Your task to perform on an android device: open a bookmark in the chrome app Image 0: 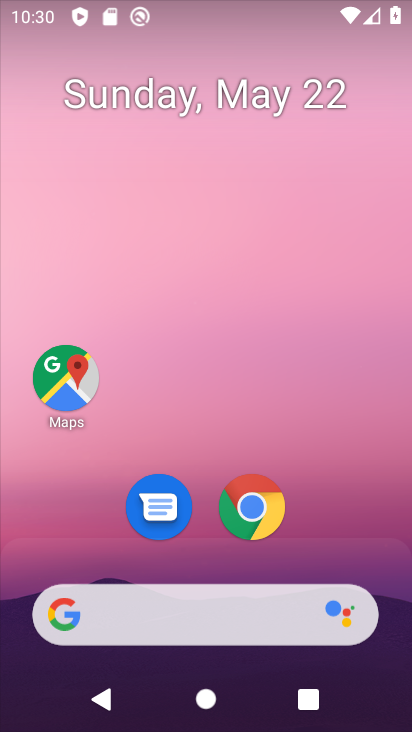
Step 0: click (235, 503)
Your task to perform on an android device: open a bookmark in the chrome app Image 1: 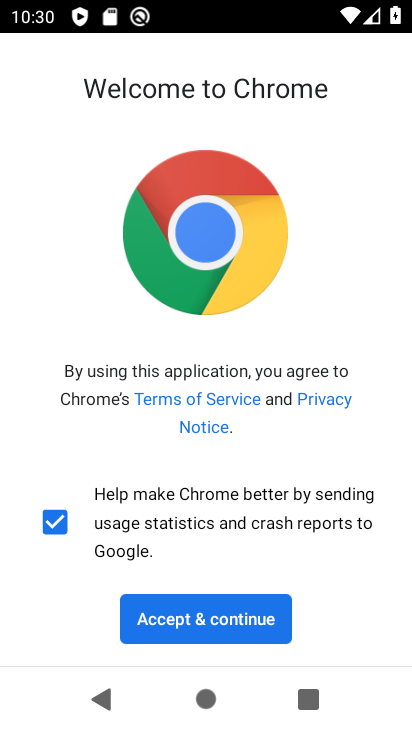
Step 1: click (226, 619)
Your task to perform on an android device: open a bookmark in the chrome app Image 2: 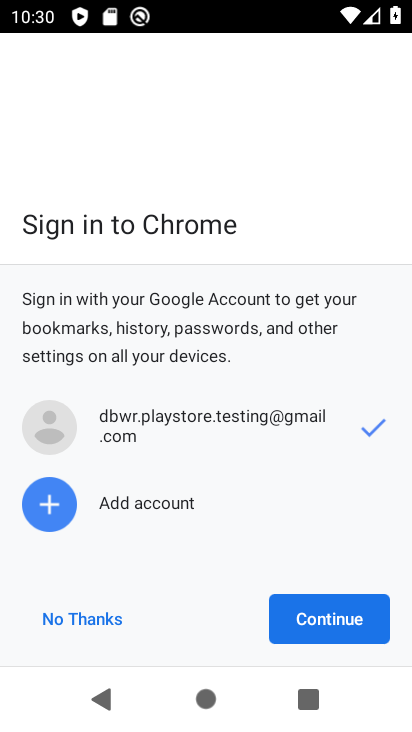
Step 2: click (360, 627)
Your task to perform on an android device: open a bookmark in the chrome app Image 3: 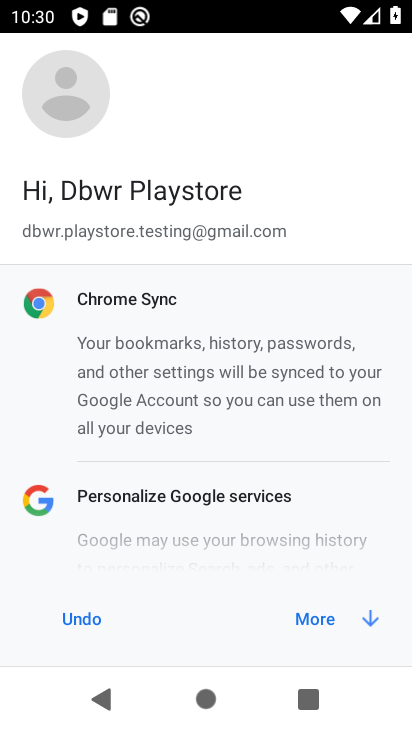
Step 3: click (341, 617)
Your task to perform on an android device: open a bookmark in the chrome app Image 4: 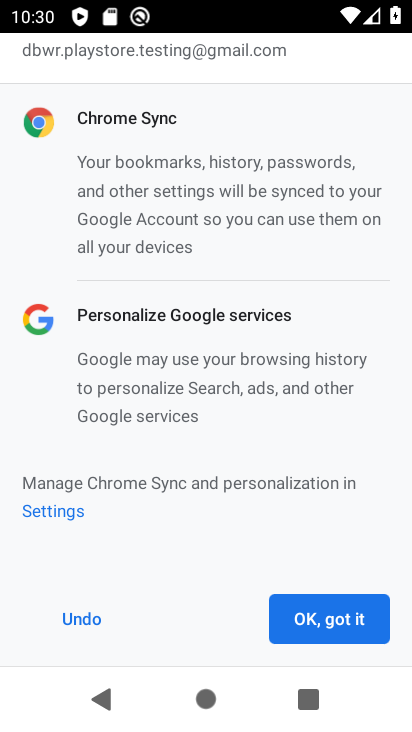
Step 4: click (341, 617)
Your task to perform on an android device: open a bookmark in the chrome app Image 5: 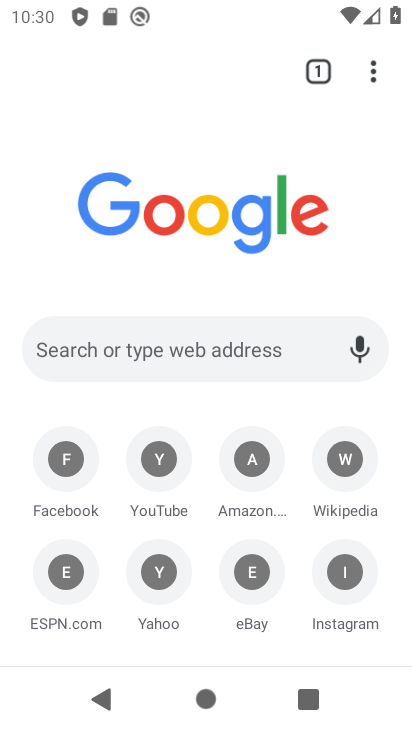
Step 5: click (369, 72)
Your task to perform on an android device: open a bookmark in the chrome app Image 6: 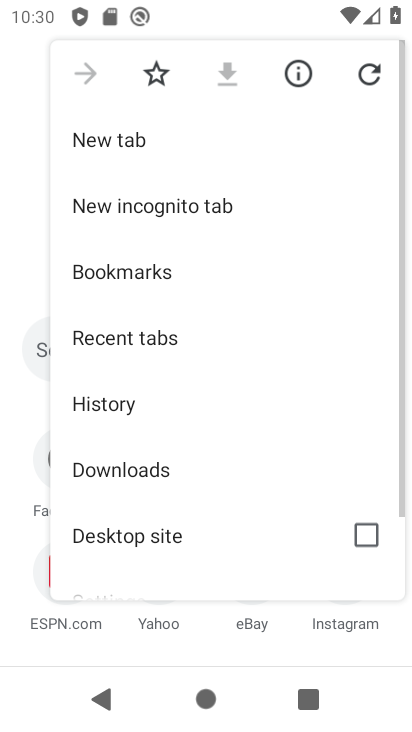
Step 6: click (205, 283)
Your task to perform on an android device: open a bookmark in the chrome app Image 7: 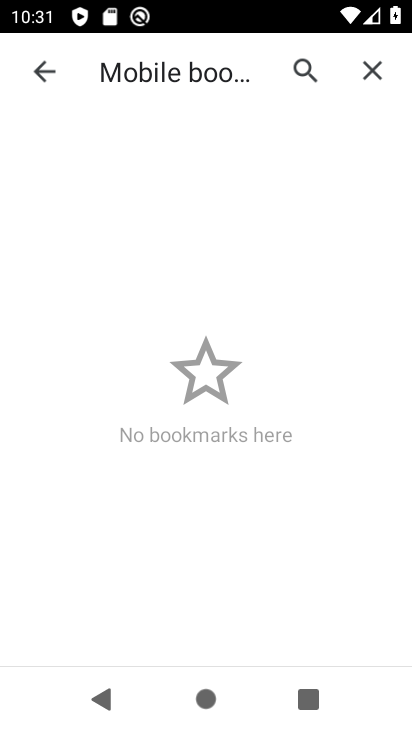
Step 7: task complete